Your task to perform on an android device: Open Chrome and go to settings Image 0: 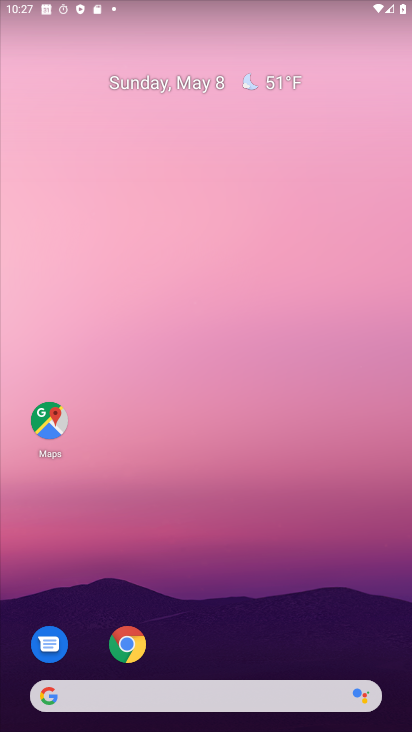
Step 0: drag from (216, 633) to (306, 140)
Your task to perform on an android device: Open Chrome and go to settings Image 1: 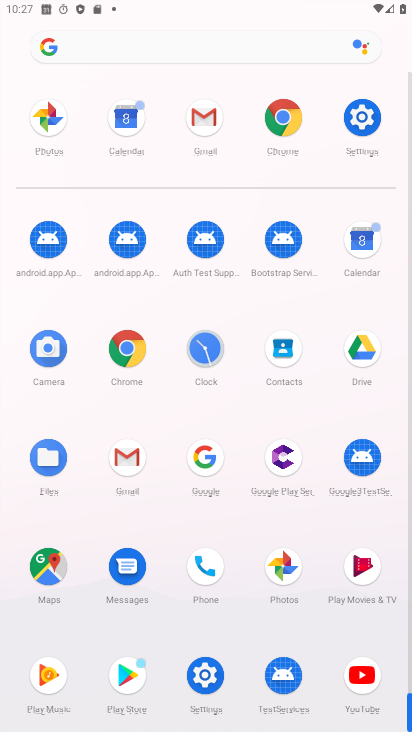
Step 1: drag from (248, 626) to (248, 223)
Your task to perform on an android device: Open Chrome and go to settings Image 2: 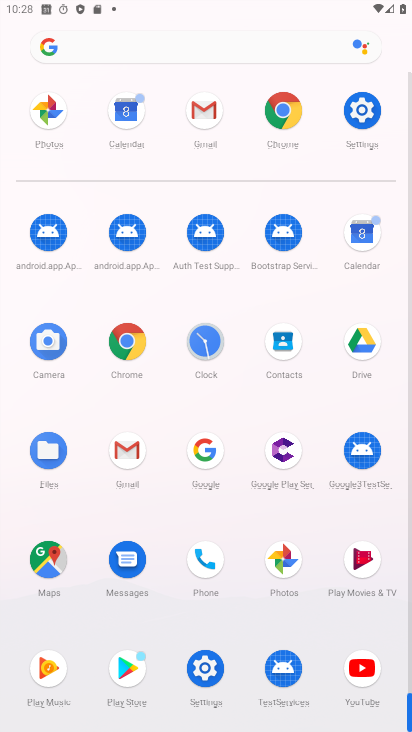
Step 2: click (121, 331)
Your task to perform on an android device: Open Chrome and go to settings Image 3: 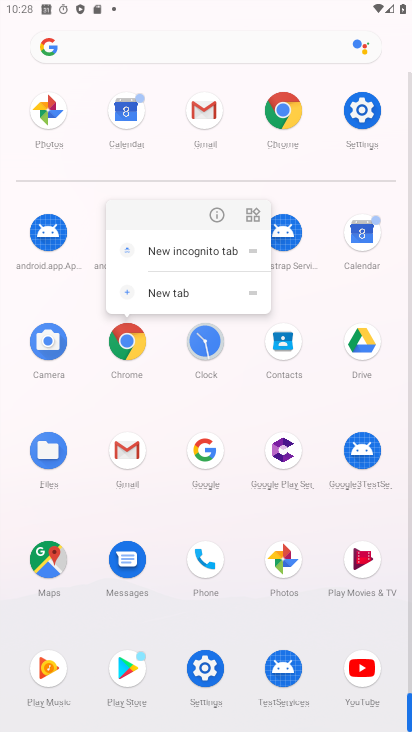
Step 3: click (216, 218)
Your task to perform on an android device: Open Chrome and go to settings Image 4: 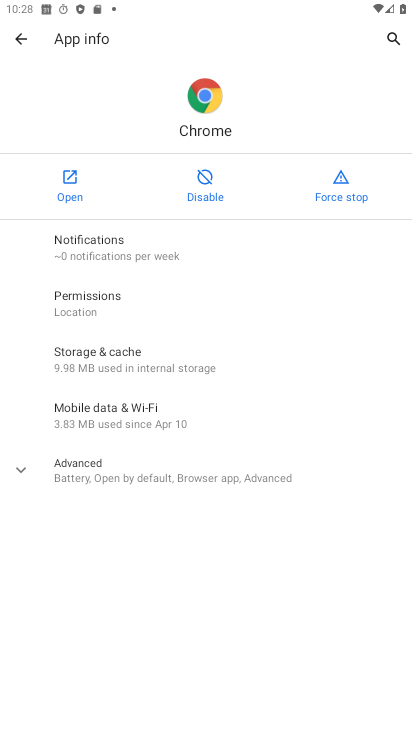
Step 4: click (77, 181)
Your task to perform on an android device: Open Chrome and go to settings Image 5: 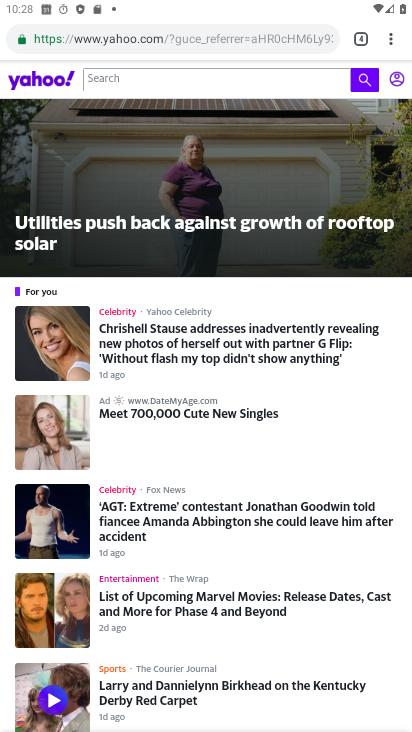
Step 5: task complete